Your task to perform on an android device: add a contact in the contacts app Image 0: 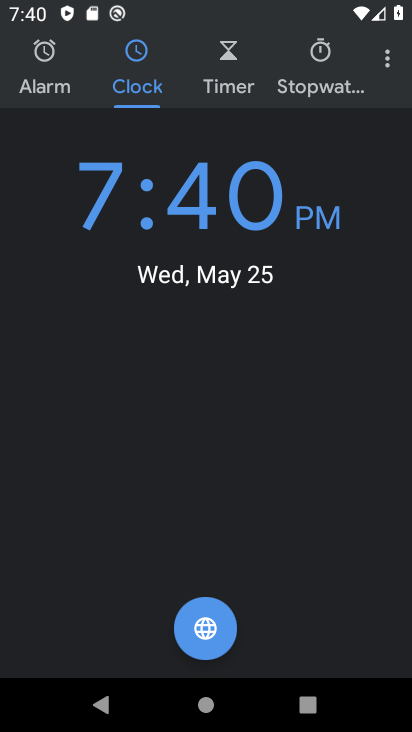
Step 0: press home button
Your task to perform on an android device: add a contact in the contacts app Image 1: 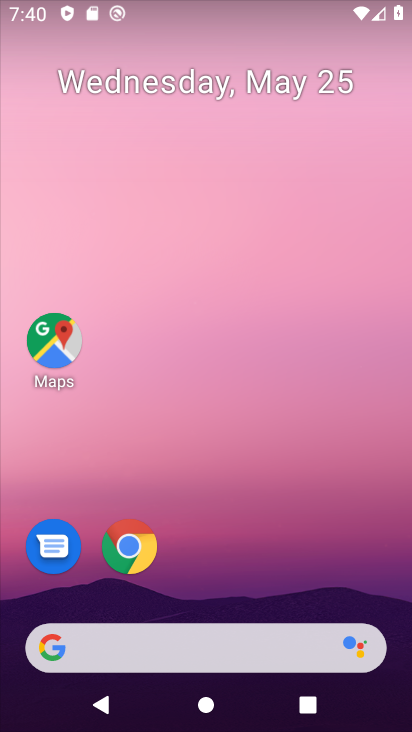
Step 1: drag from (248, 564) to (355, 2)
Your task to perform on an android device: add a contact in the contacts app Image 2: 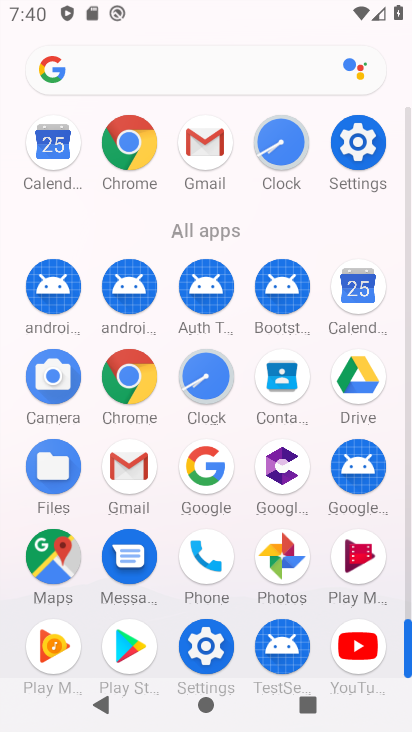
Step 2: drag from (260, 573) to (243, 235)
Your task to perform on an android device: add a contact in the contacts app Image 3: 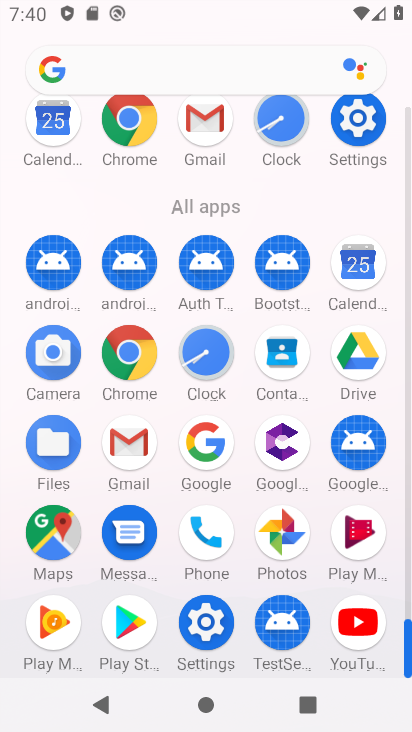
Step 3: click (285, 378)
Your task to perform on an android device: add a contact in the contacts app Image 4: 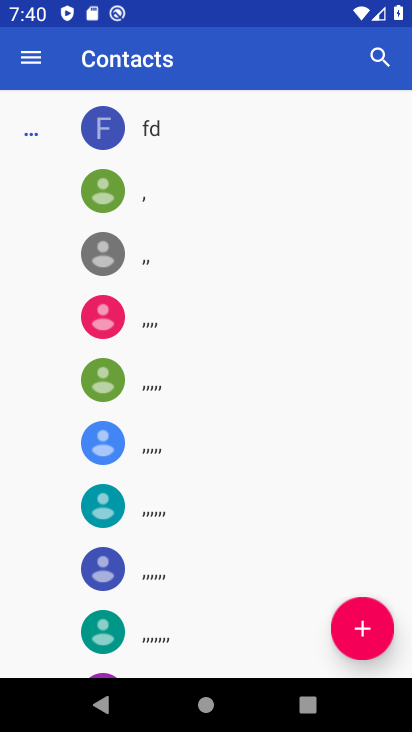
Step 4: click (372, 636)
Your task to perform on an android device: add a contact in the contacts app Image 5: 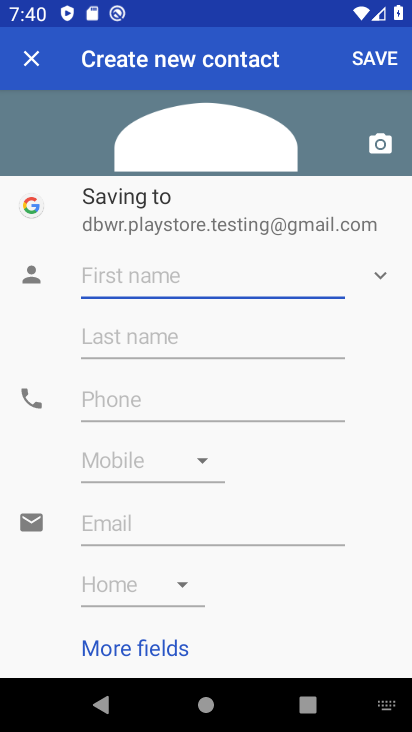
Step 5: click (171, 284)
Your task to perform on an android device: add a contact in the contacts app Image 6: 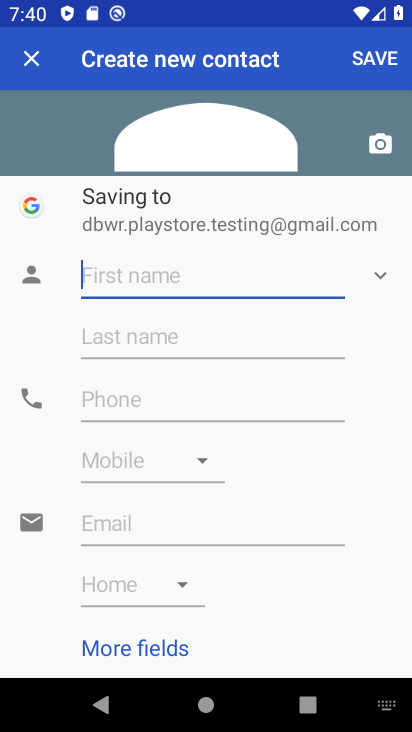
Step 6: type "Anjum"
Your task to perform on an android device: add a contact in the contacts app Image 7: 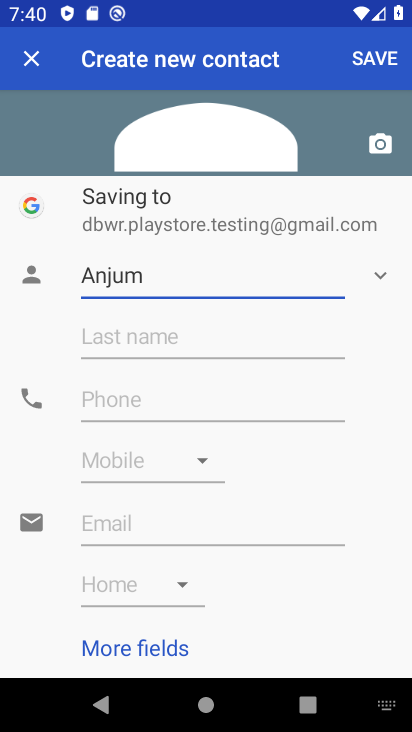
Step 7: click (279, 345)
Your task to perform on an android device: add a contact in the contacts app Image 8: 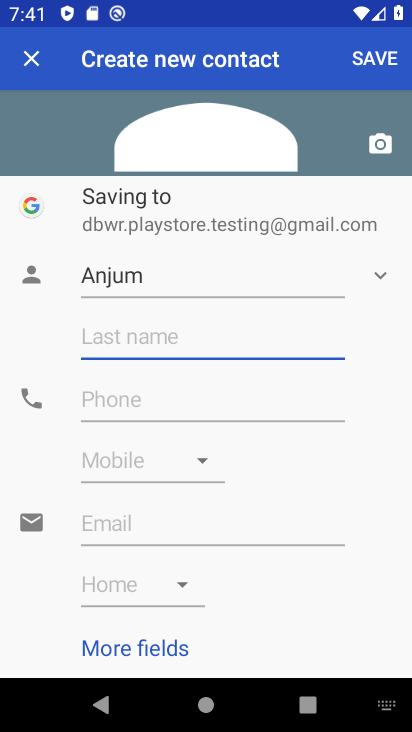
Step 8: type "Desai"
Your task to perform on an android device: add a contact in the contacts app Image 9: 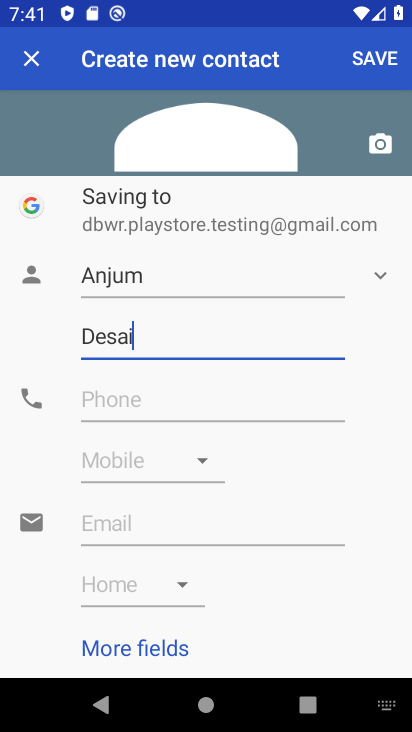
Step 9: click (152, 406)
Your task to perform on an android device: add a contact in the contacts app Image 10: 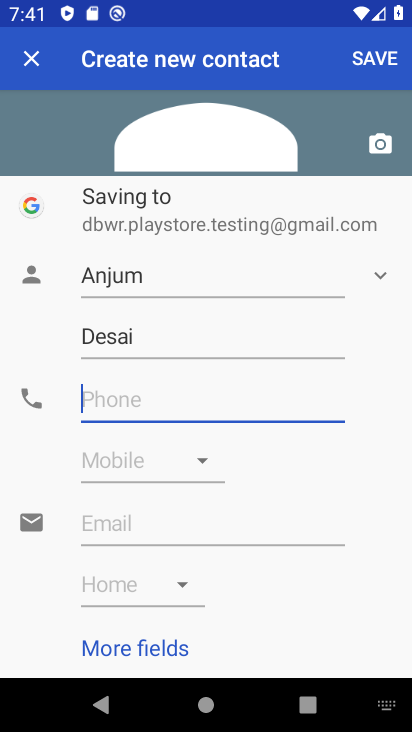
Step 10: type "6562676890"
Your task to perform on an android device: add a contact in the contacts app Image 11: 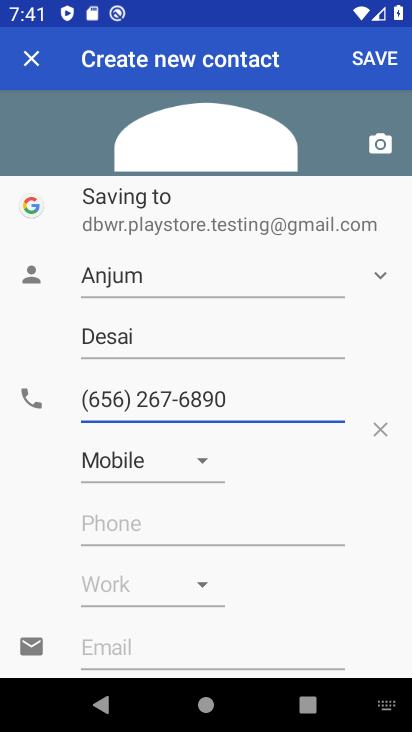
Step 11: click (374, 66)
Your task to perform on an android device: add a contact in the contacts app Image 12: 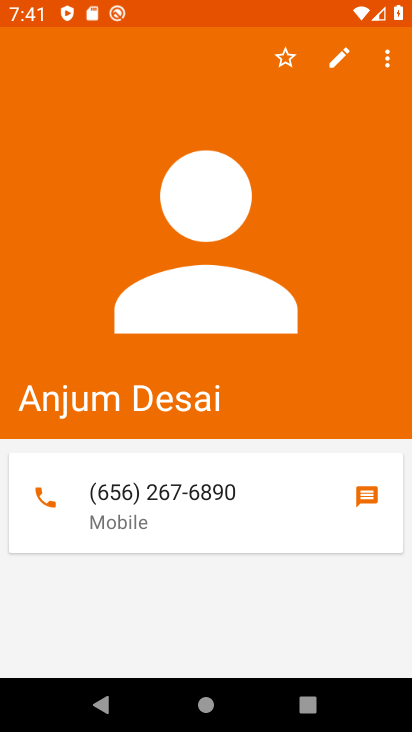
Step 12: task complete